Your task to perform on an android device: Check the weather Image 0: 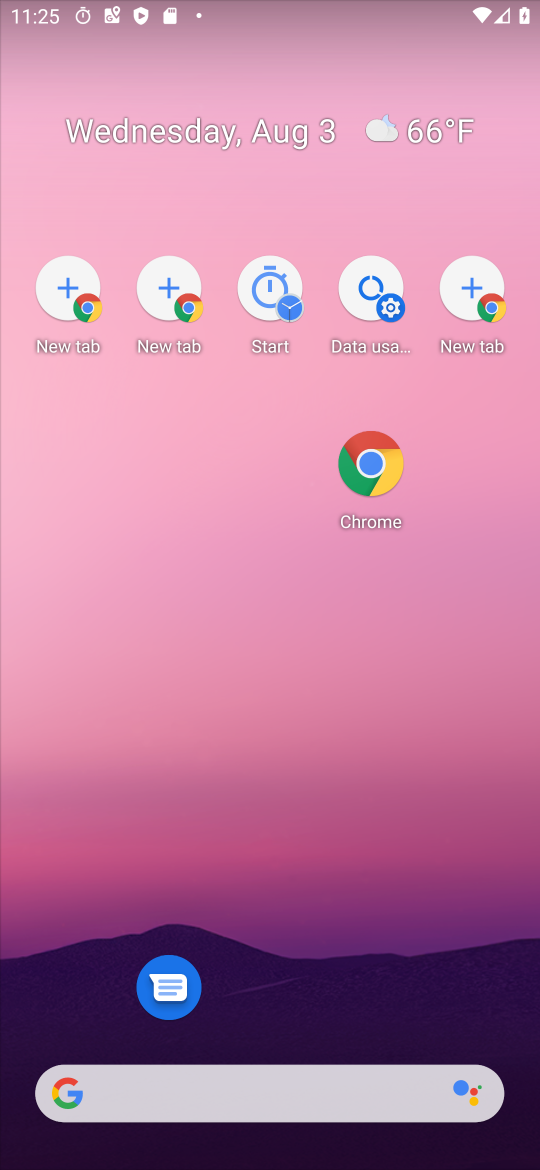
Step 0: drag from (265, 718) to (119, 12)
Your task to perform on an android device: Check the weather Image 1: 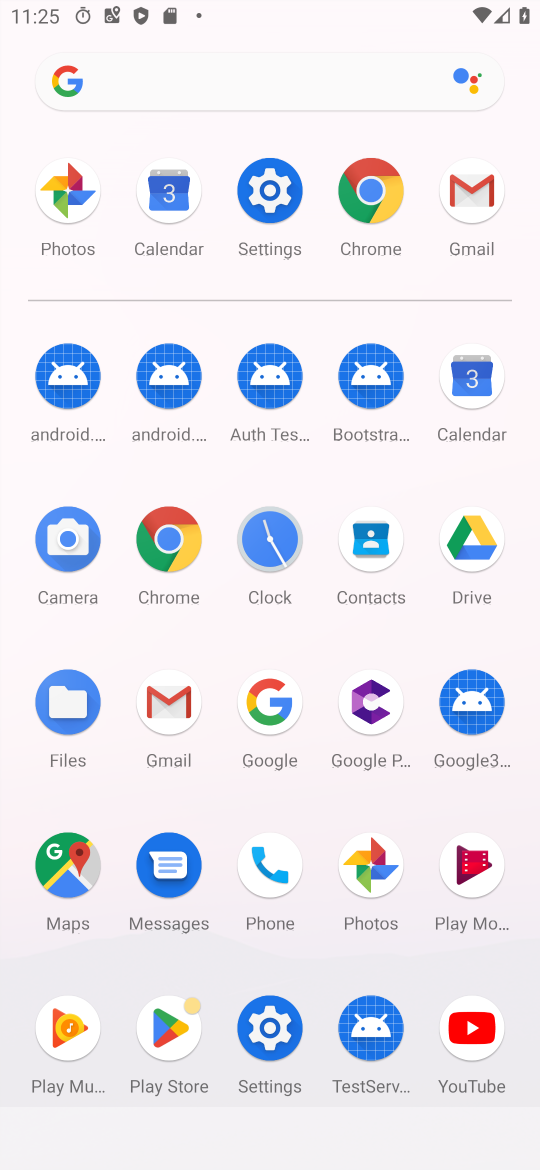
Step 1: press back button
Your task to perform on an android device: Check the weather Image 2: 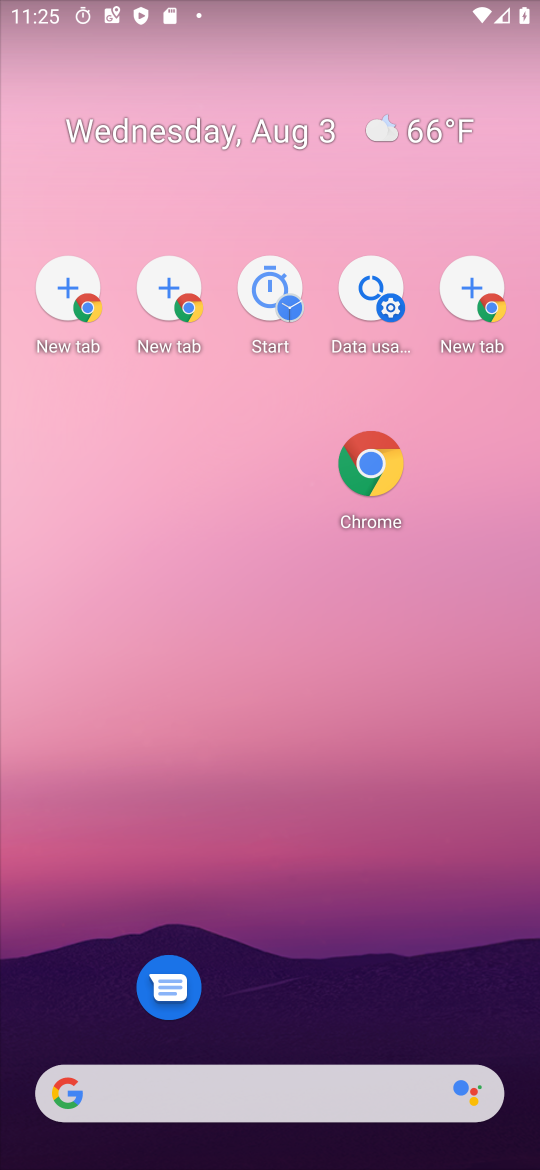
Step 2: click (390, 122)
Your task to perform on an android device: Check the weather Image 3: 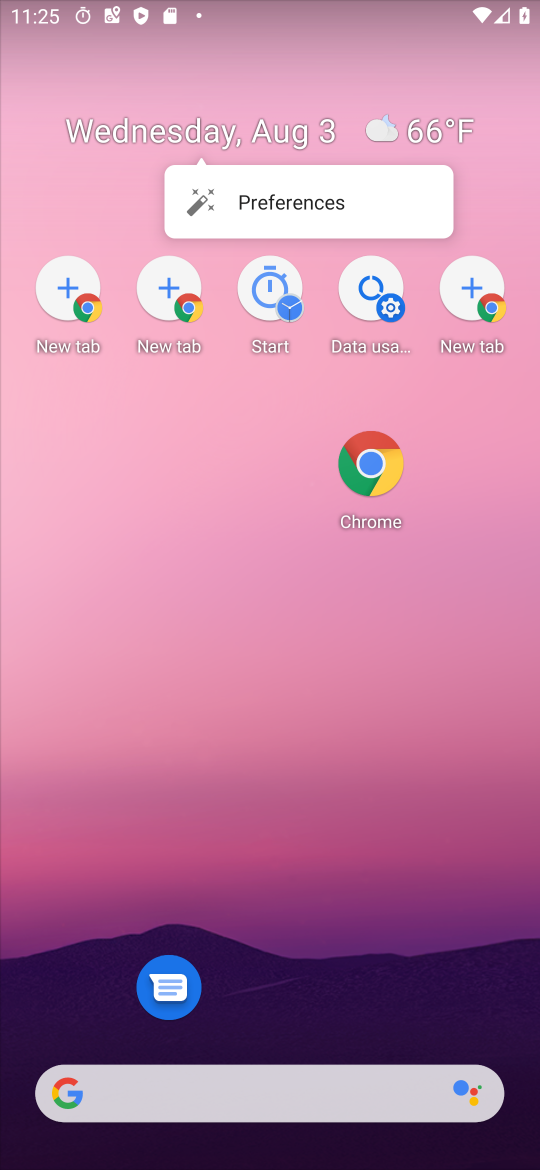
Step 3: drag from (398, 138) to (389, 629)
Your task to perform on an android device: Check the weather Image 4: 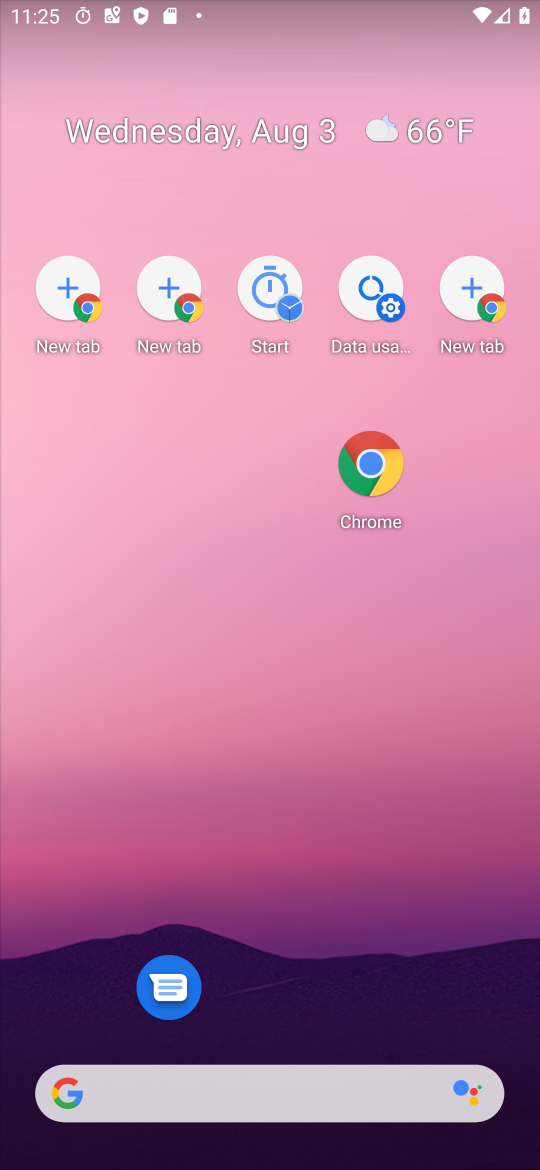
Step 4: drag from (401, 110) to (346, 1067)
Your task to perform on an android device: Check the weather Image 5: 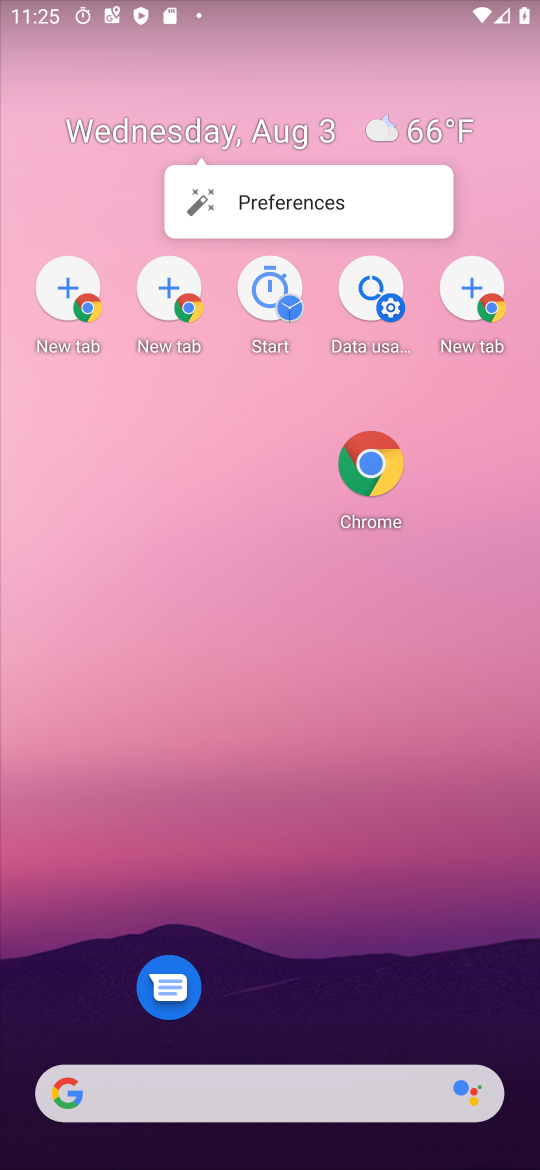
Step 5: drag from (430, 122) to (385, 166)
Your task to perform on an android device: Check the weather Image 6: 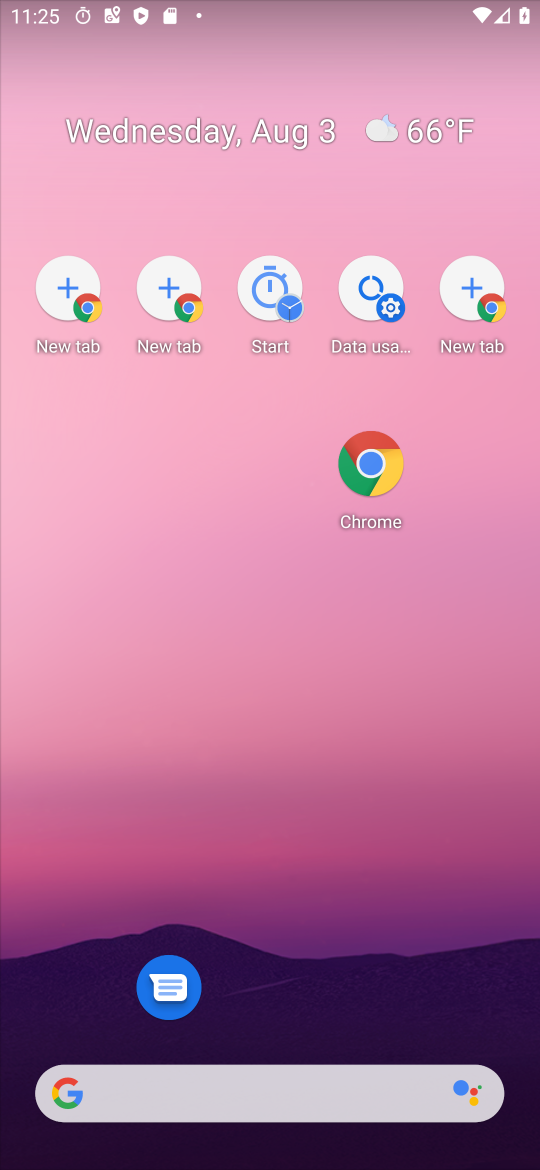
Step 6: drag from (285, 921) to (347, 2)
Your task to perform on an android device: Check the weather Image 7: 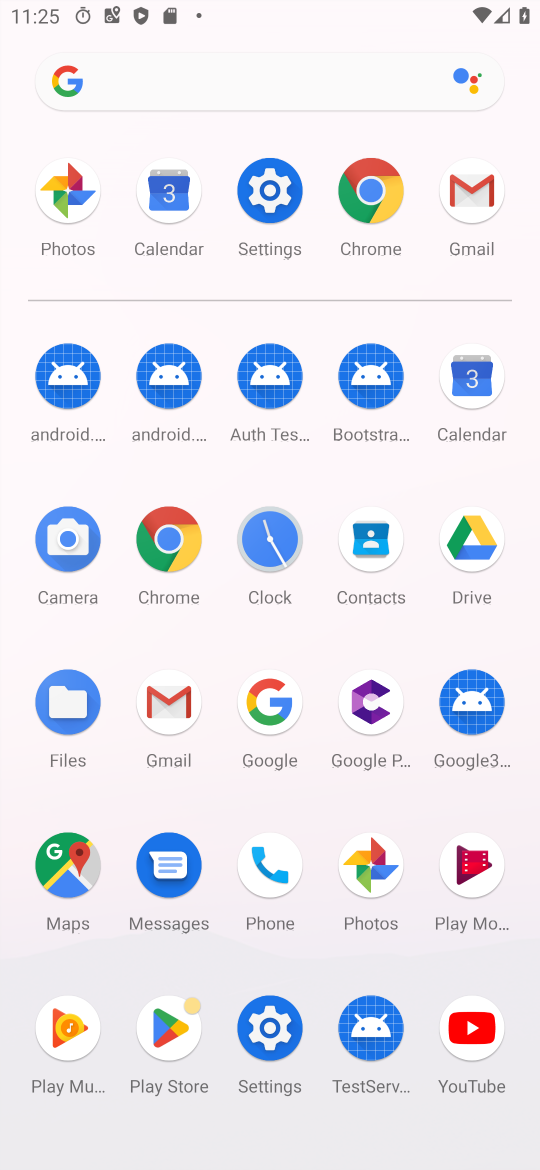
Step 7: click (361, 193)
Your task to perform on an android device: Check the weather Image 8: 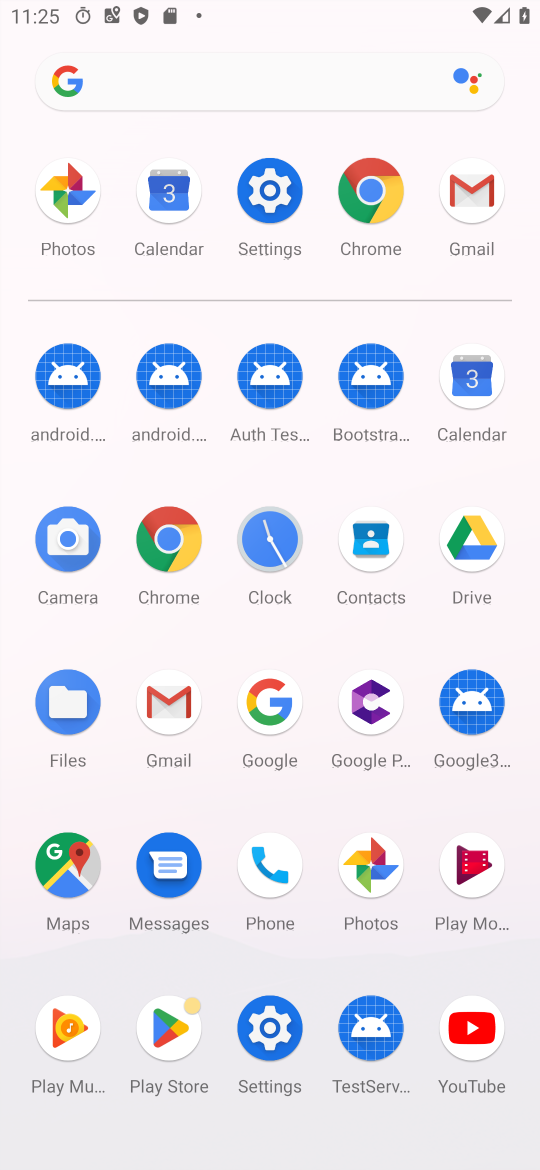
Step 8: click (361, 193)
Your task to perform on an android device: Check the weather Image 9: 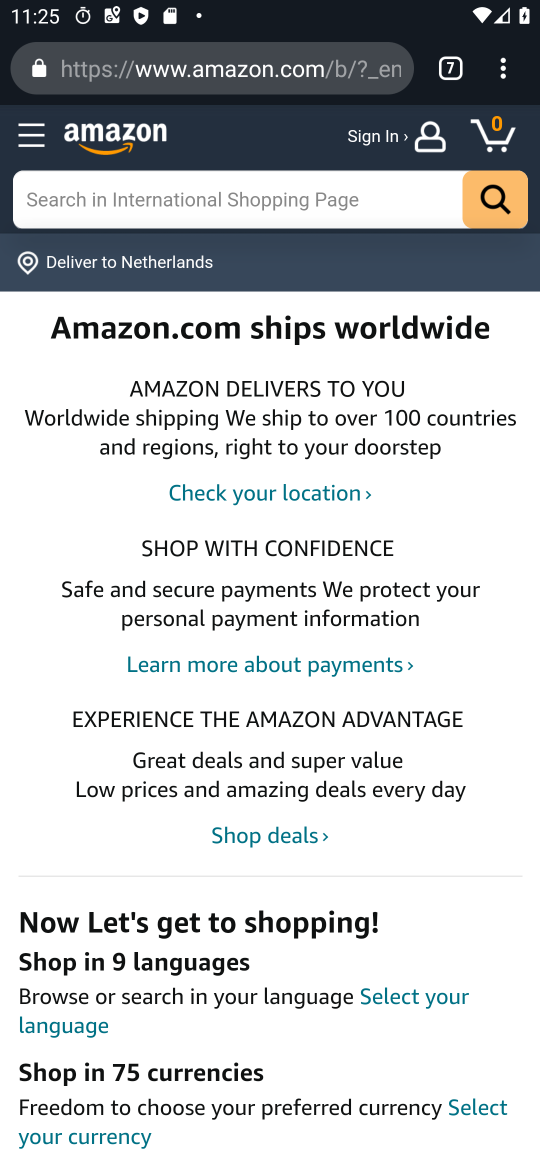
Step 9: drag from (499, 70) to (233, 144)
Your task to perform on an android device: Check the weather Image 10: 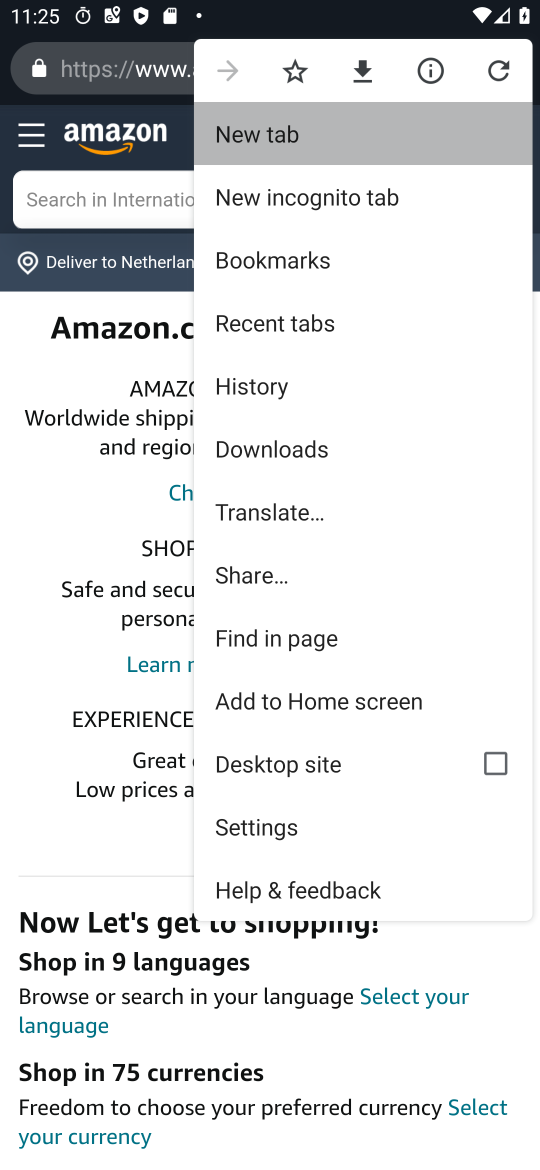
Step 10: click (232, 147)
Your task to perform on an android device: Check the weather Image 11: 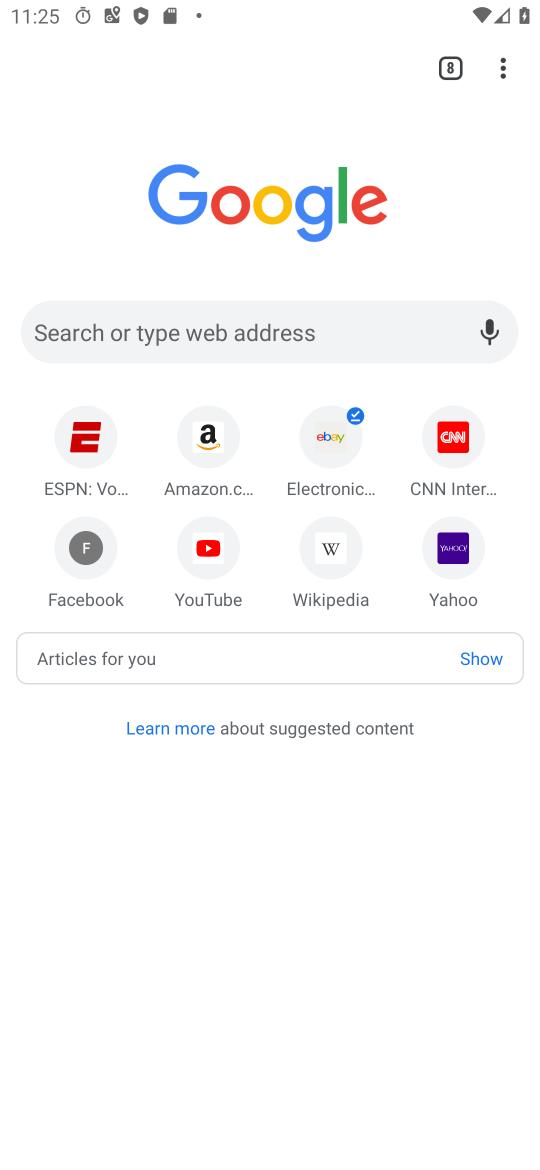
Step 11: click (77, 340)
Your task to perform on an android device: Check the weather Image 12: 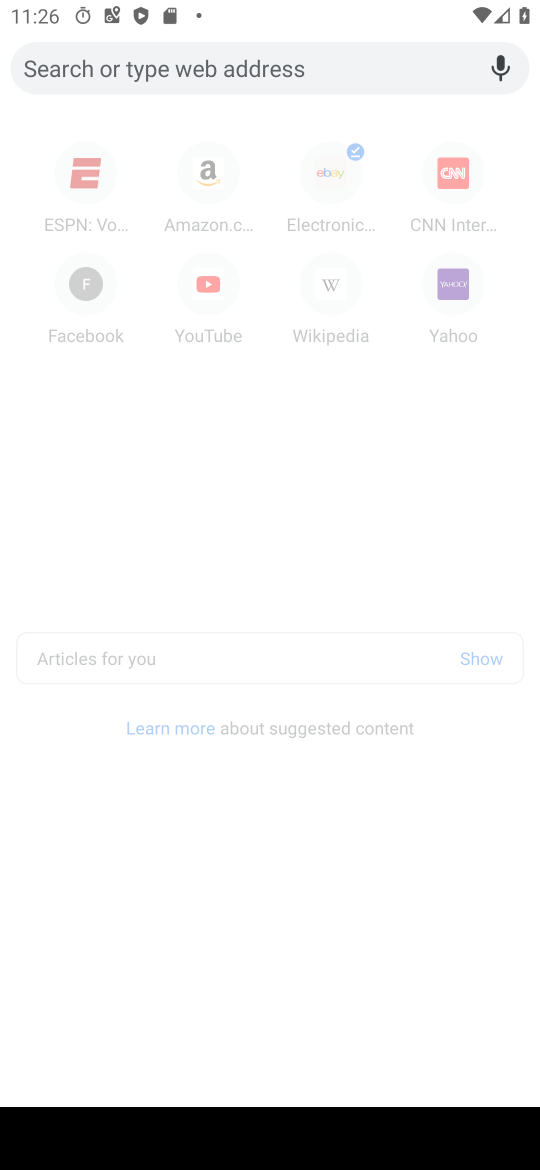
Step 12: type "weather"
Your task to perform on an android device: Check the weather Image 13: 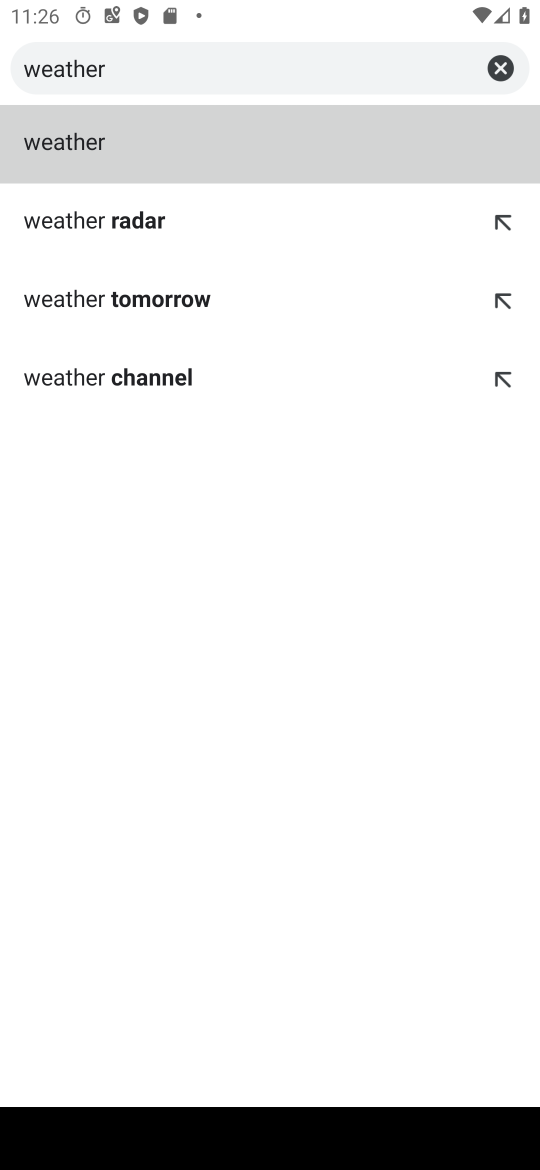
Step 13: click (83, 147)
Your task to perform on an android device: Check the weather Image 14: 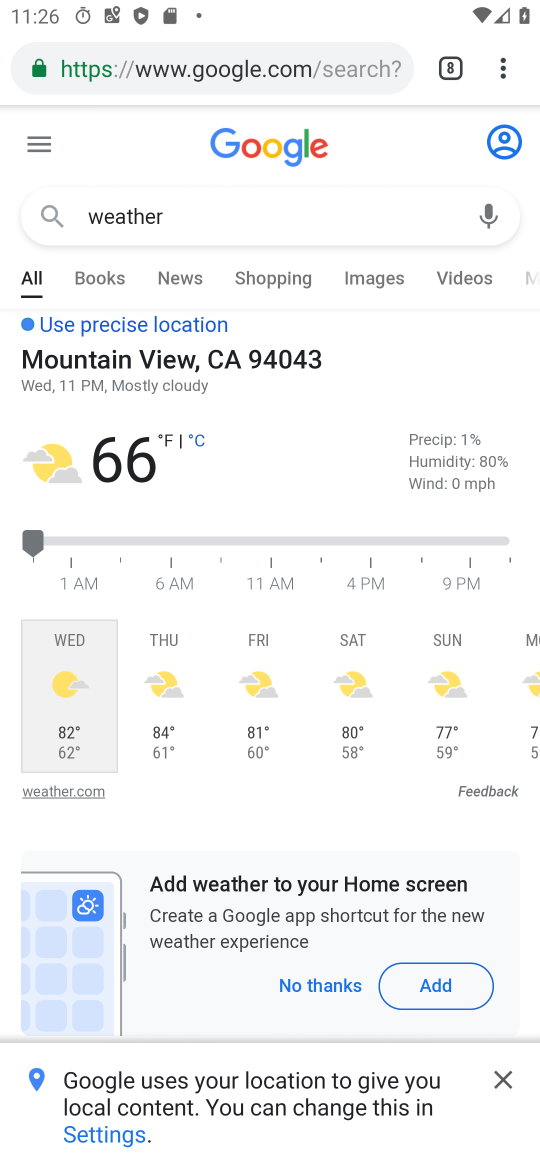
Step 14: task complete